Your task to perform on an android device: Go to Maps Image 0: 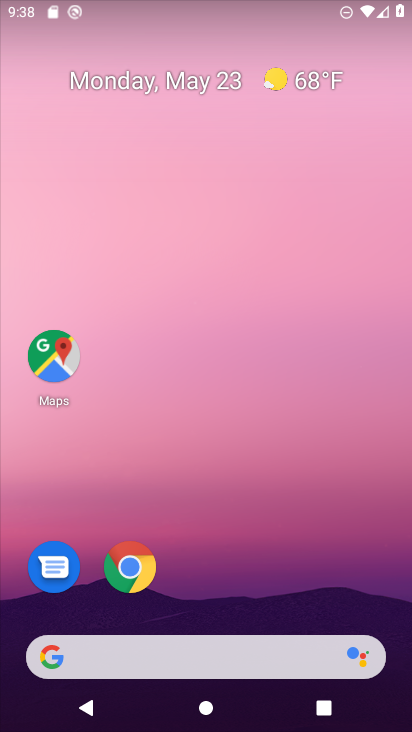
Step 0: drag from (284, 5) to (131, 9)
Your task to perform on an android device: Go to Maps Image 1: 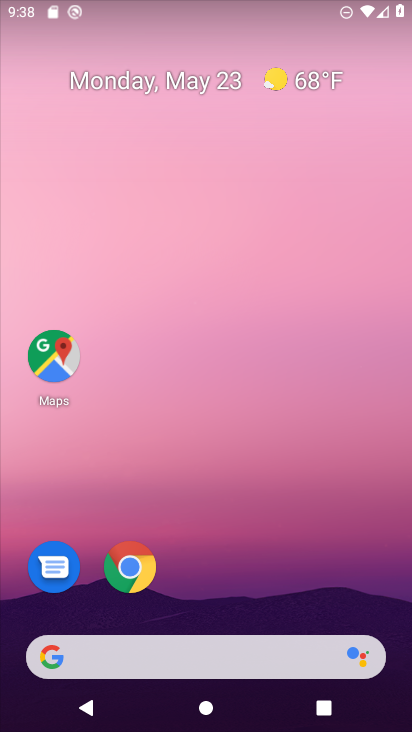
Step 1: drag from (206, 623) to (21, 28)
Your task to perform on an android device: Go to Maps Image 2: 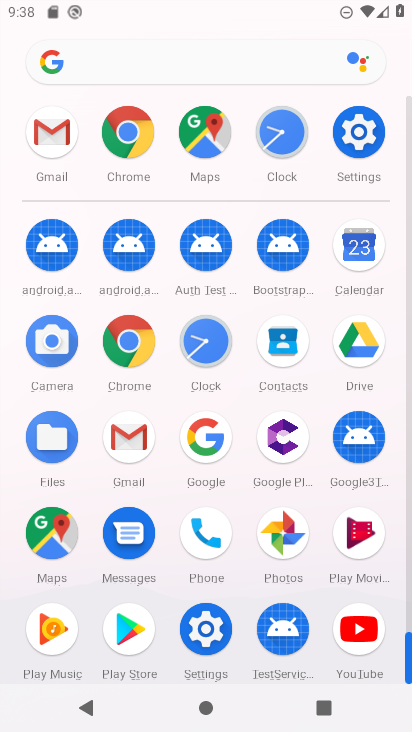
Step 2: click (56, 520)
Your task to perform on an android device: Go to Maps Image 3: 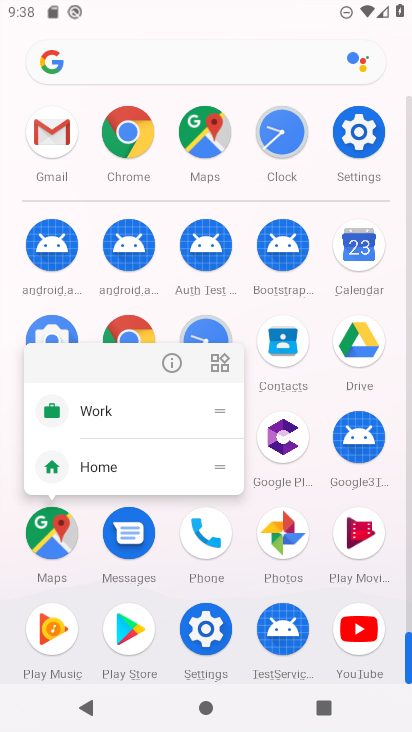
Step 3: click (172, 364)
Your task to perform on an android device: Go to Maps Image 4: 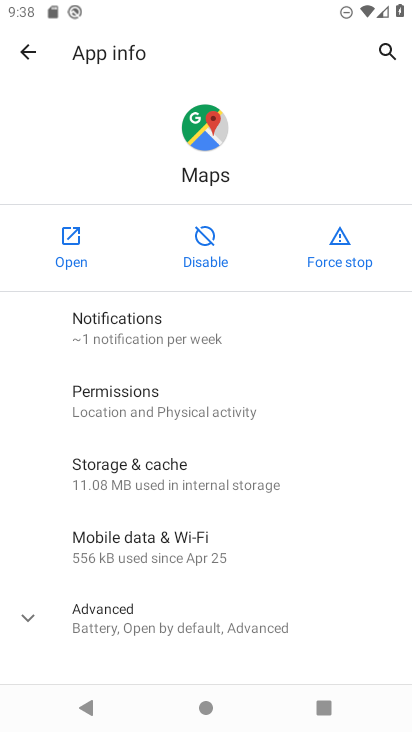
Step 4: click (47, 225)
Your task to perform on an android device: Go to Maps Image 5: 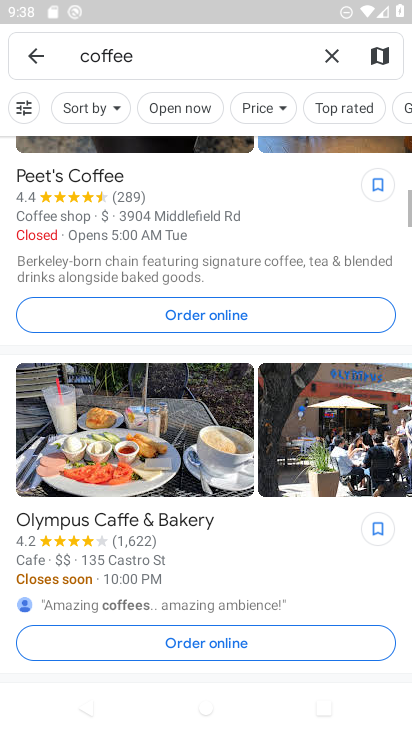
Step 5: task complete